Your task to perform on an android device: Open Google Maps and go to "Timeline" Image 0: 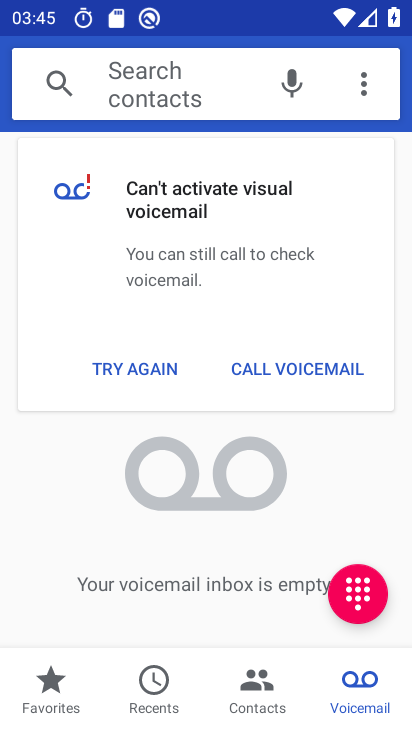
Step 0: press home button
Your task to perform on an android device: Open Google Maps and go to "Timeline" Image 1: 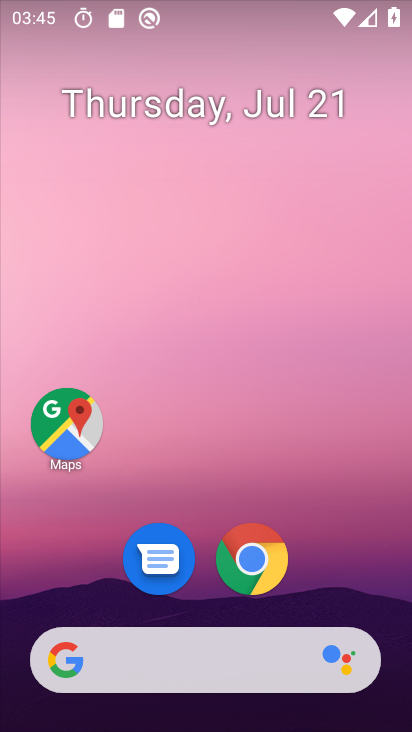
Step 1: drag from (317, 563) to (355, 67)
Your task to perform on an android device: Open Google Maps and go to "Timeline" Image 2: 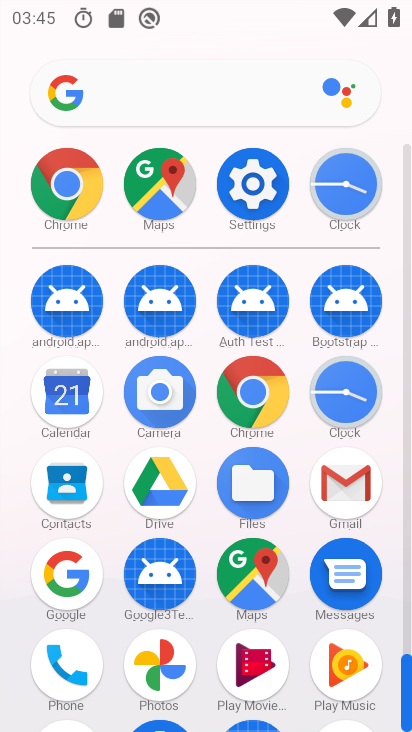
Step 2: click (255, 574)
Your task to perform on an android device: Open Google Maps and go to "Timeline" Image 3: 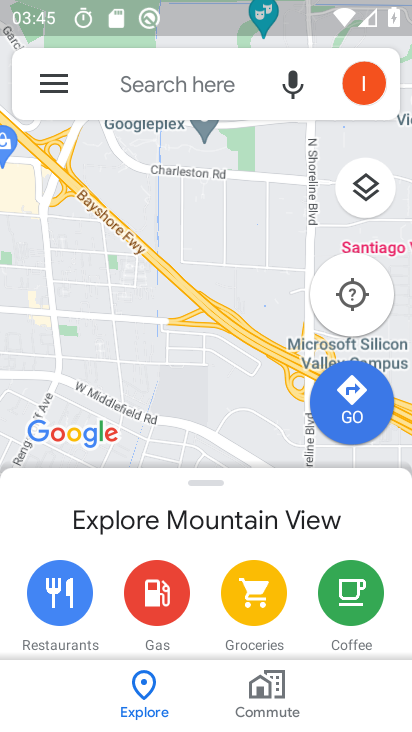
Step 3: click (54, 86)
Your task to perform on an android device: Open Google Maps and go to "Timeline" Image 4: 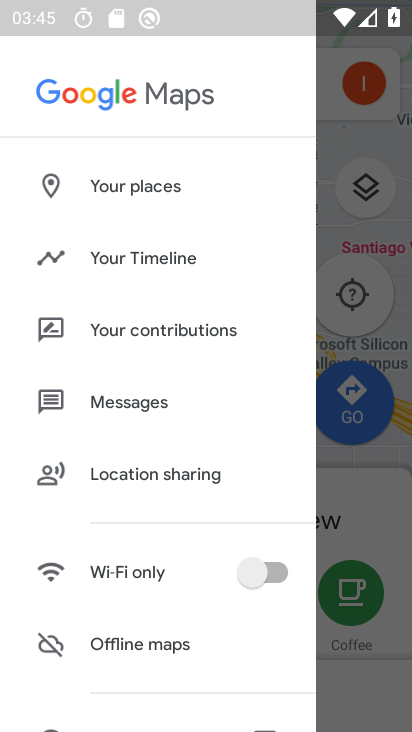
Step 4: click (123, 258)
Your task to perform on an android device: Open Google Maps and go to "Timeline" Image 5: 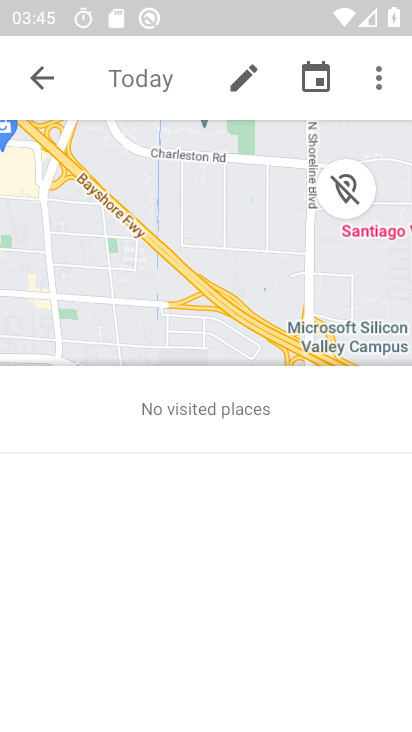
Step 5: task complete